Your task to perform on an android device: set an alarm Image 0: 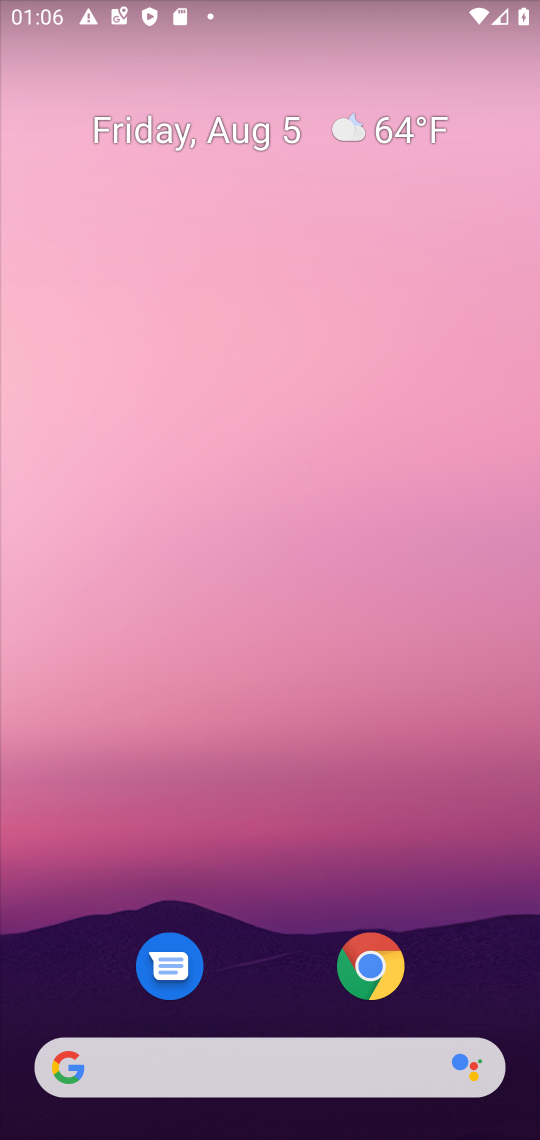
Step 0: drag from (274, 909) to (311, 22)
Your task to perform on an android device: set an alarm Image 1: 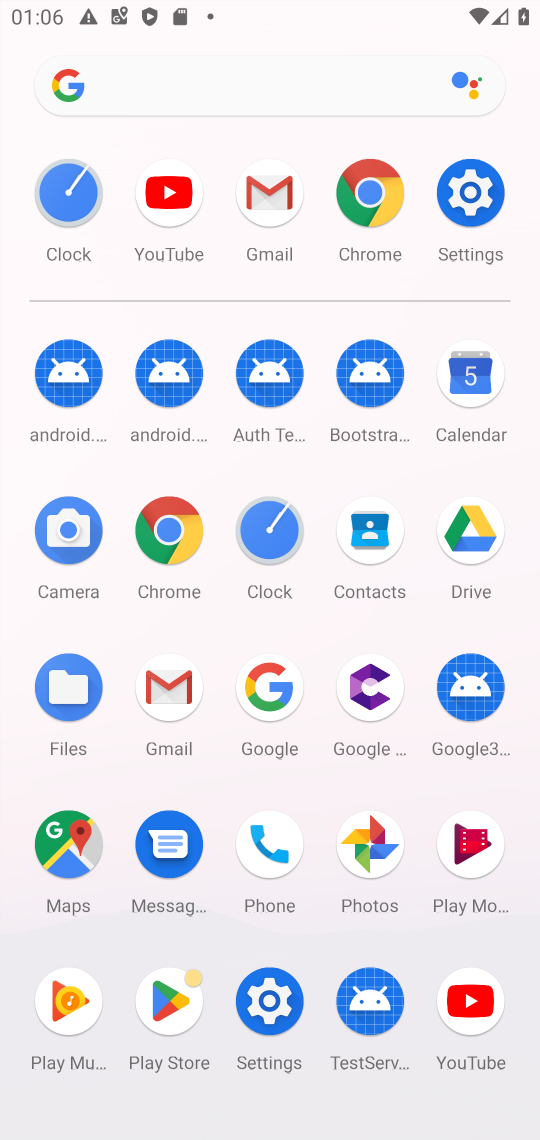
Step 1: click (261, 521)
Your task to perform on an android device: set an alarm Image 2: 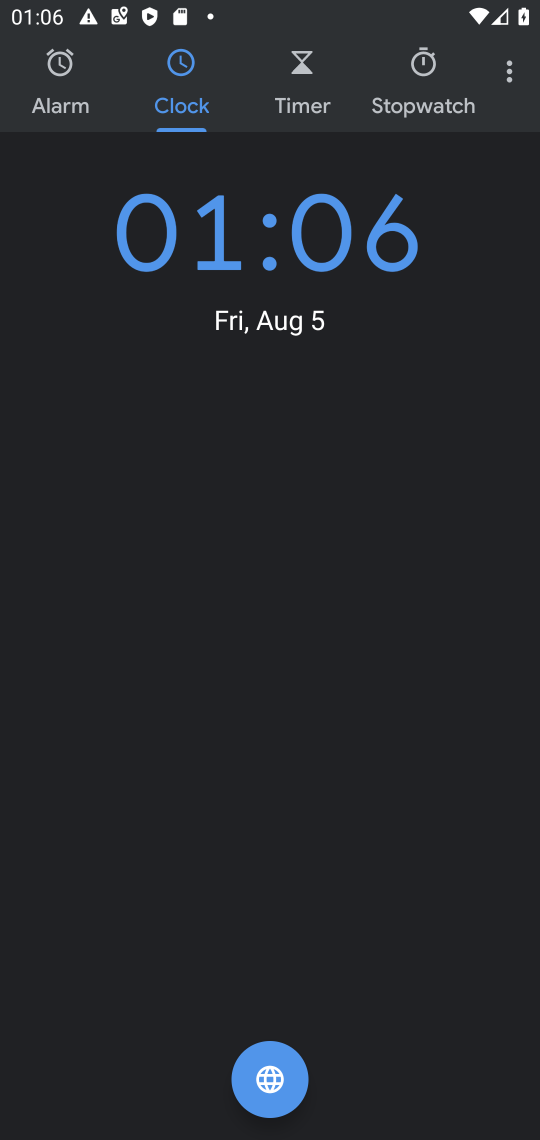
Step 2: click (63, 59)
Your task to perform on an android device: set an alarm Image 3: 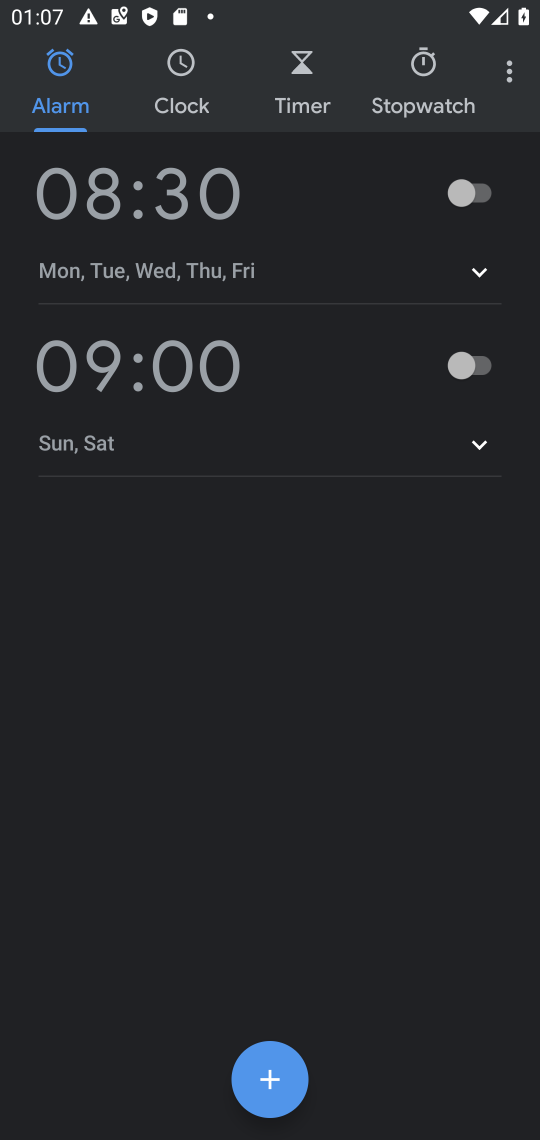
Step 3: task complete